Your task to perform on an android device: open chrome and create a bookmark for the current page Image 0: 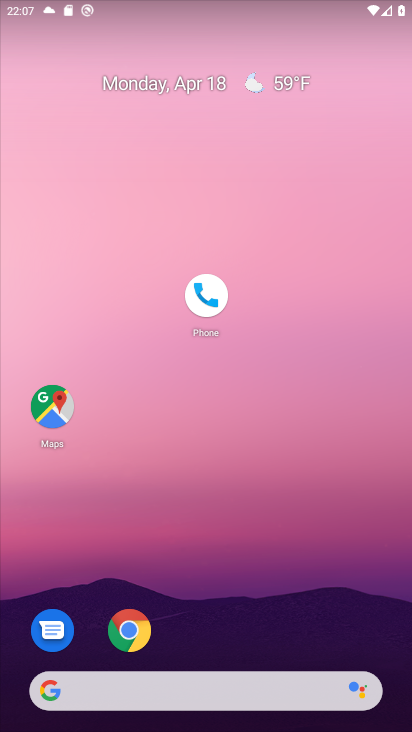
Step 0: click (128, 619)
Your task to perform on an android device: open chrome and create a bookmark for the current page Image 1: 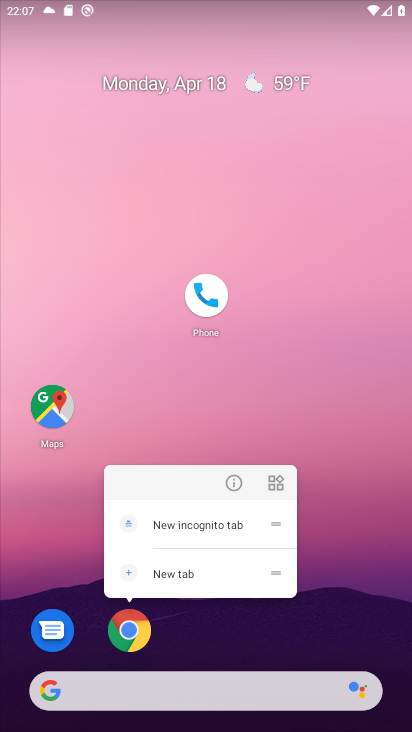
Step 1: click (135, 616)
Your task to perform on an android device: open chrome and create a bookmark for the current page Image 2: 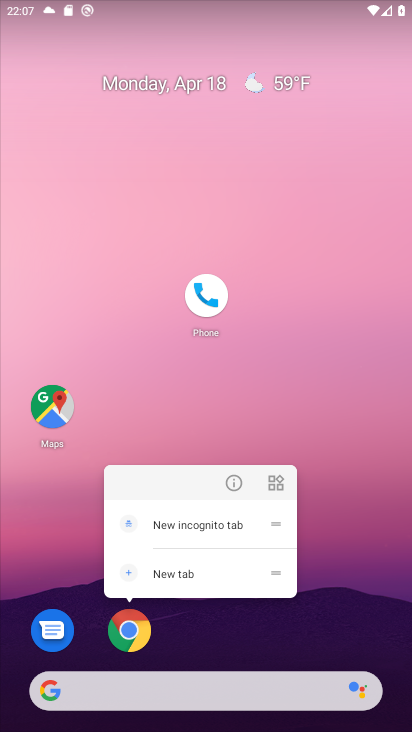
Step 2: drag from (323, 592) to (326, 3)
Your task to perform on an android device: open chrome and create a bookmark for the current page Image 3: 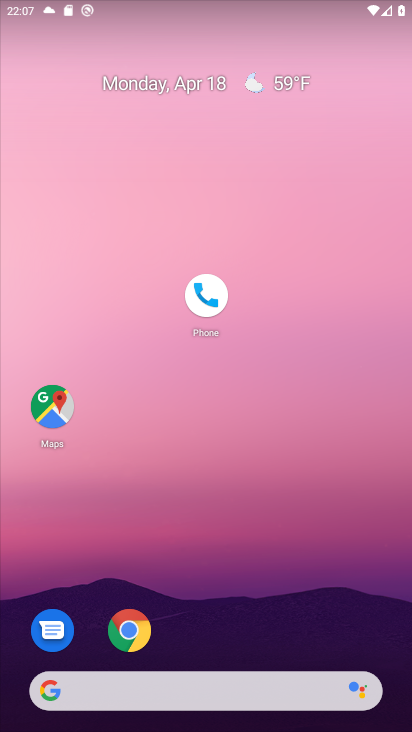
Step 3: drag from (269, 537) to (374, 7)
Your task to perform on an android device: open chrome and create a bookmark for the current page Image 4: 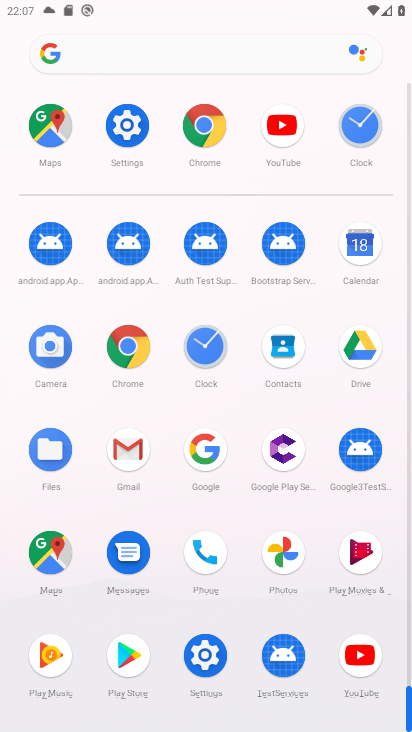
Step 4: click (123, 346)
Your task to perform on an android device: open chrome and create a bookmark for the current page Image 5: 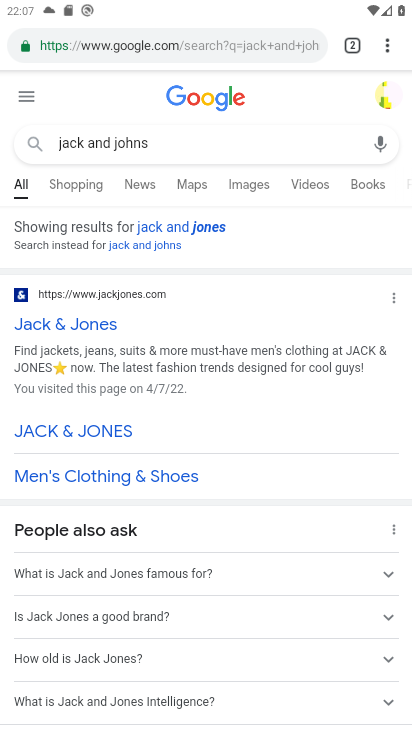
Step 5: drag from (387, 40) to (122, 139)
Your task to perform on an android device: open chrome and create a bookmark for the current page Image 6: 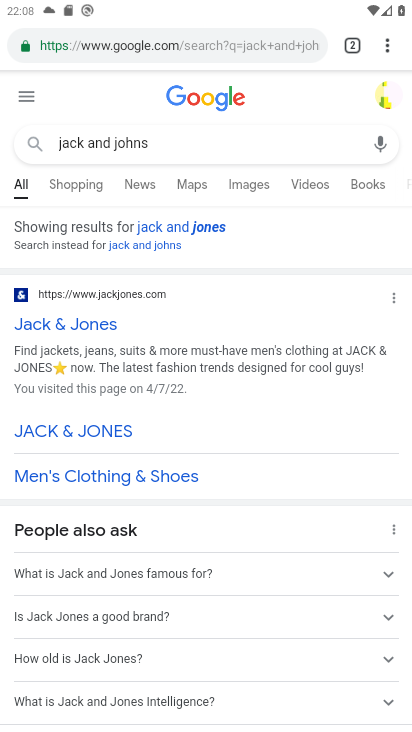
Step 6: click (187, 138)
Your task to perform on an android device: open chrome and create a bookmark for the current page Image 7: 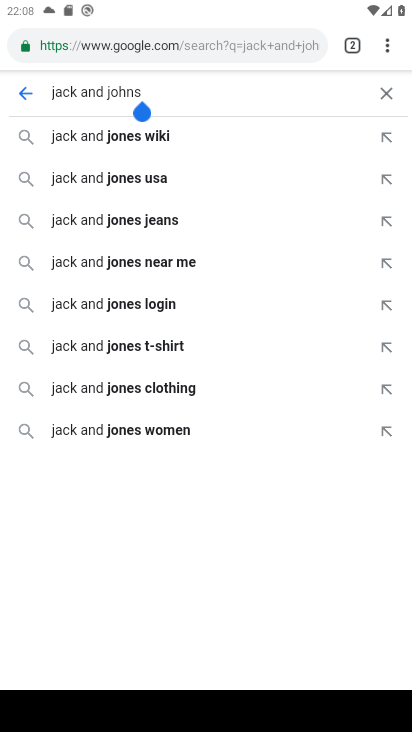
Step 7: click (184, 135)
Your task to perform on an android device: open chrome and create a bookmark for the current page Image 8: 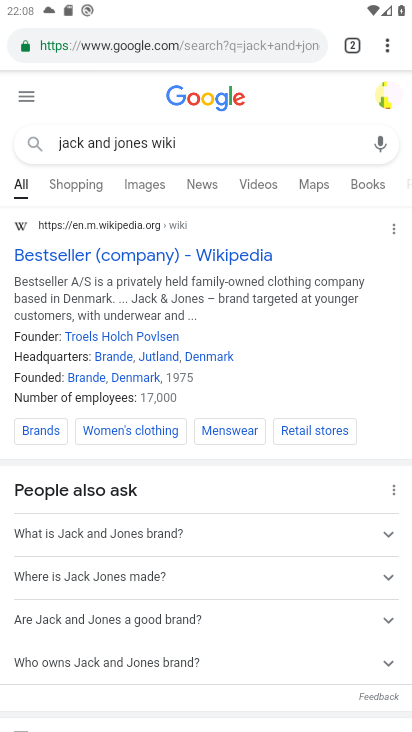
Step 8: drag from (385, 41) to (253, 47)
Your task to perform on an android device: open chrome and create a bookmark for the current page Image 9: 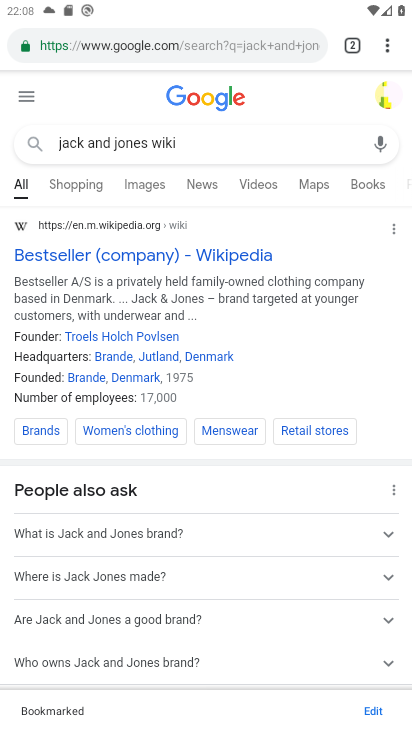
Step 9: click (388, 39)
Your task to perform on an android device: open chrome and create a bookmark for the current page Image 10: 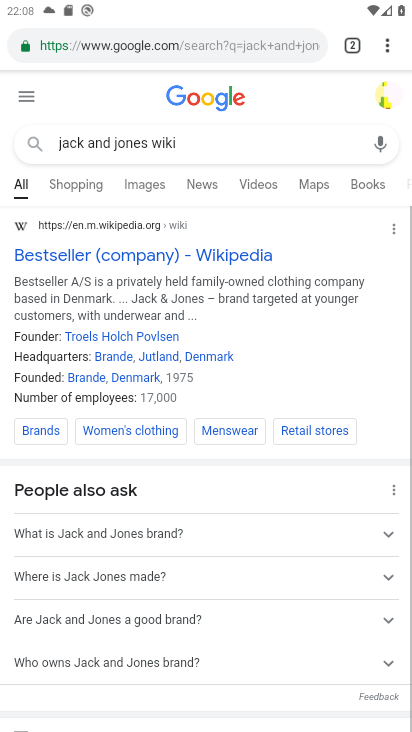
Step 10: task complete